Your task to perform on an android device: Open Google Chrome and open the bookmarks view Image 0: 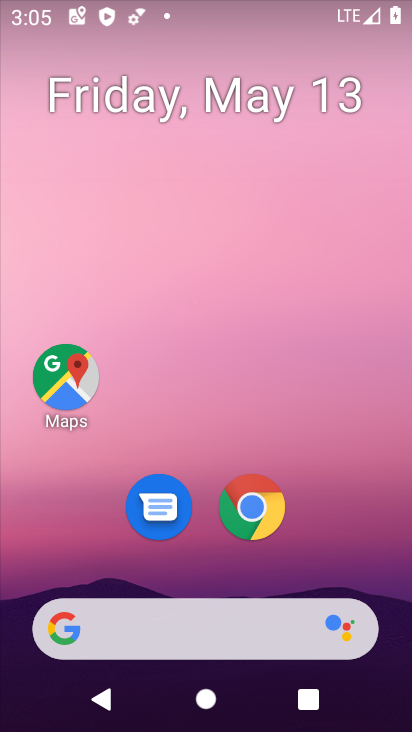
Step 0: click (244, 502)
Your task to perform on an android device: Open Google Chrome and open the bookmarks view Image 1: 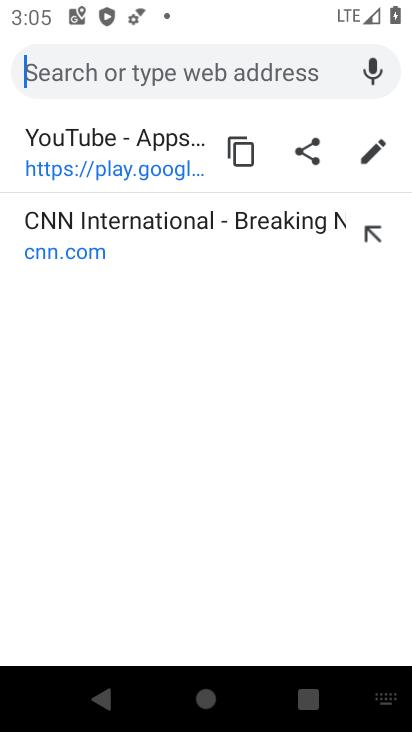
Step 1: click (117, 713)
Your task to perform on an android device: Open Google Chrome and open the bookmarks view Image 2: 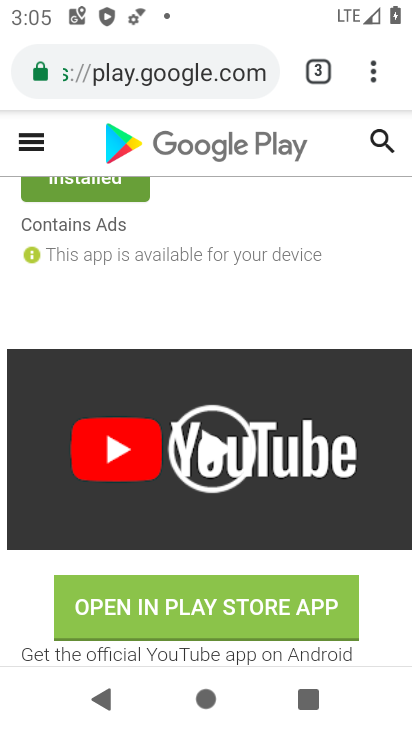
Step 2: click (370, 64)
Your task to perform on an android device: Open Google Chrome and open the bookmarks view Image 3: 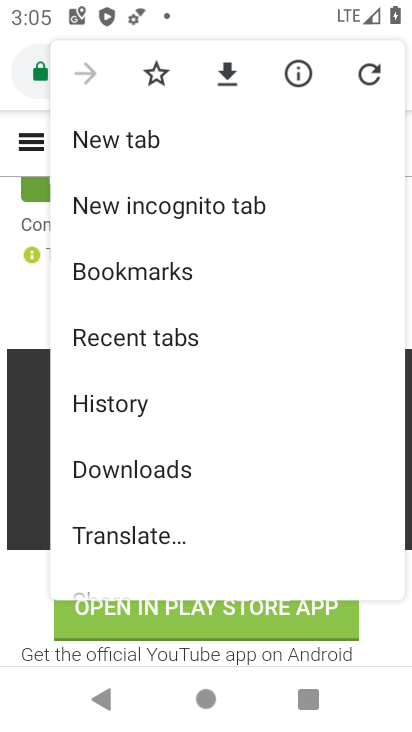
Step 3: click (110, 255)
Your task to perform on an android device: Open Google Chrome and open the bookmarks view Image 4: 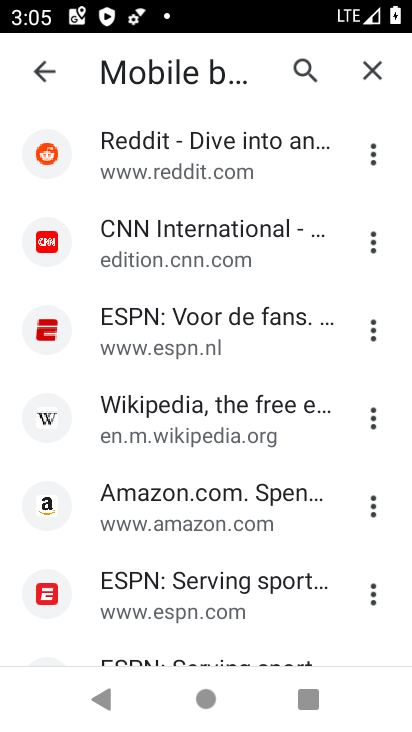
Step 4: task complete